Your task to perform on an android device: delete browsing data in the chrome app Image 0: 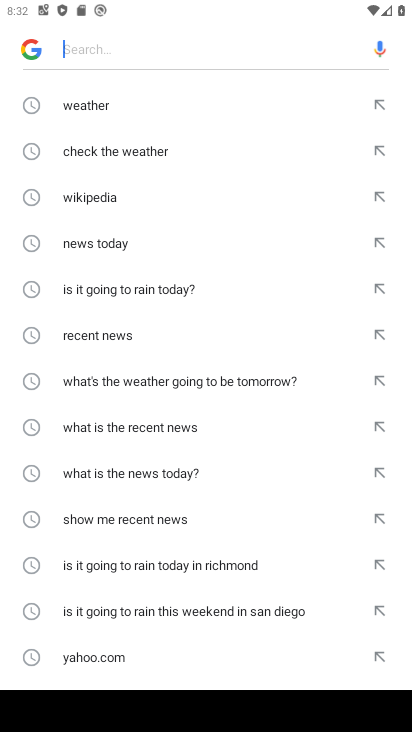
Step 0: press home button
Your task to perform on an android device: delete browsing data in the chrome app Image 1: 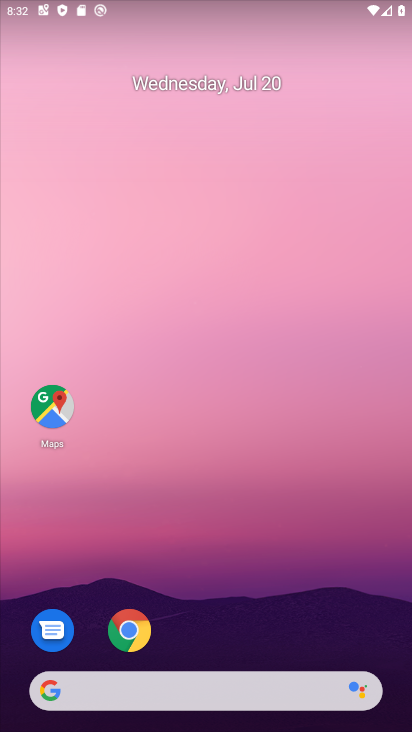
Step 1: click (121, 621)
Your task to perform on an android device: delete browsing data in the chrome app Image 2: 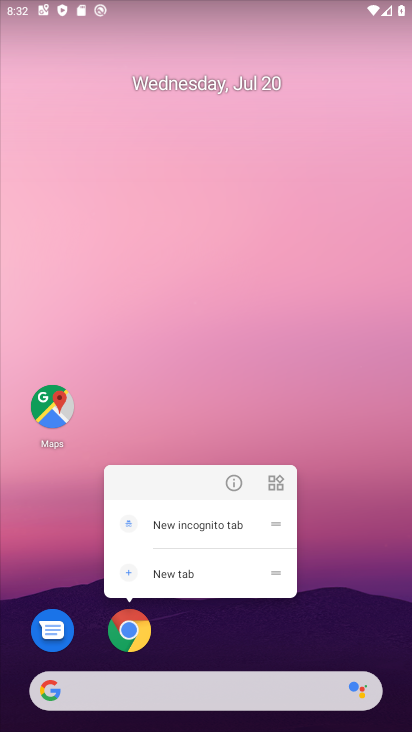
Step 2: click (123, 635)
Your task to perform on an android device: delete browsing data in the chrome app Image 3: 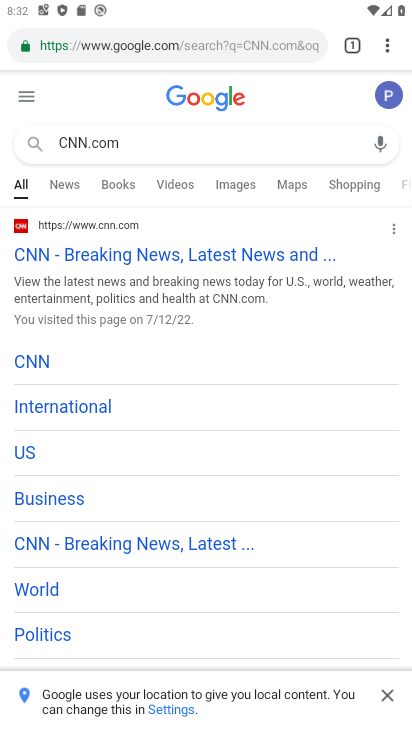
Step 3: click (389, 45)
Your task to perform on an android device: delete browsing data in the chrome app Image 4: 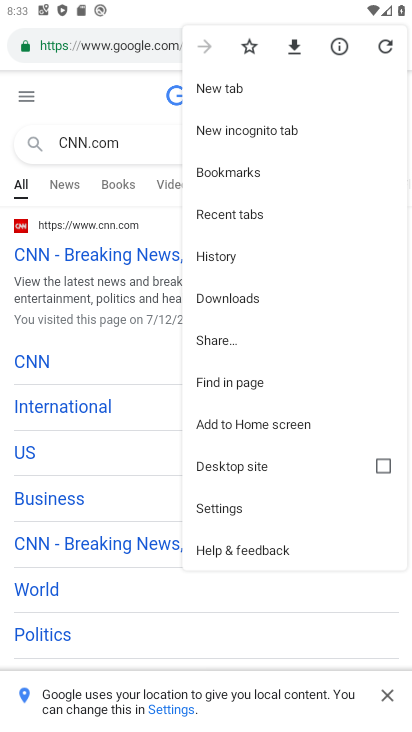
Step 4: click (214, 253)
Your task to perform on an android device: delete browsing data in the chrome app Image 5: 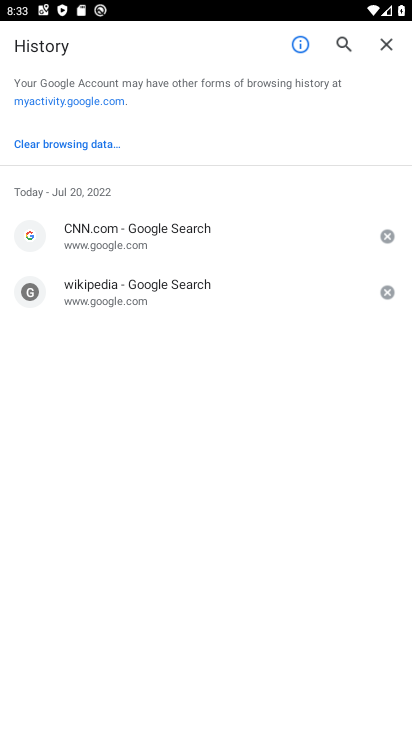
Step 5: click (63, 141)
Your task to perform on an android device: delete browsing data in the chrome app Image 6: 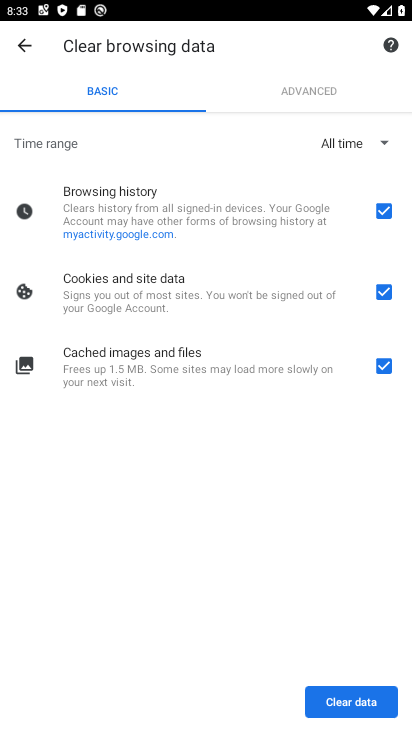
Step 6: click (338, 702)
Your task to perform on an android device: delete browsing data in the chrome app Image 7: 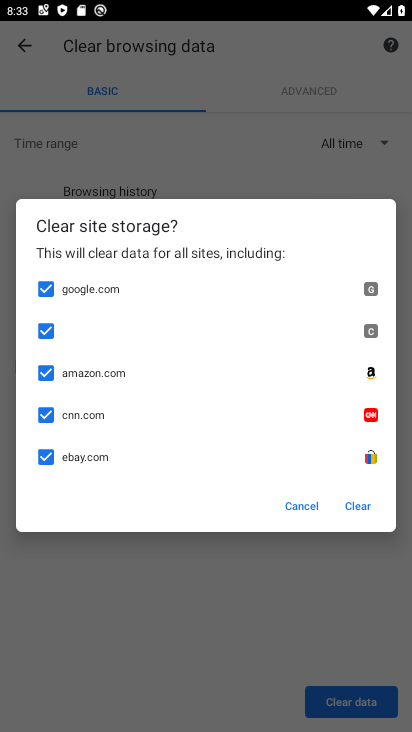
Step 7: click (360, 498)
Your task to perform on an android device: delete browsing data in the chrome app Image 8: 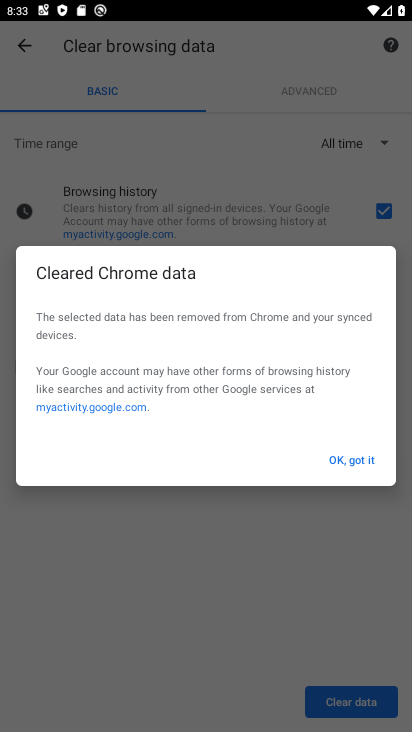
Step 8: click (355, 462)
Your task to perform on an android device: delete browsing data in the chrome app Image 9: 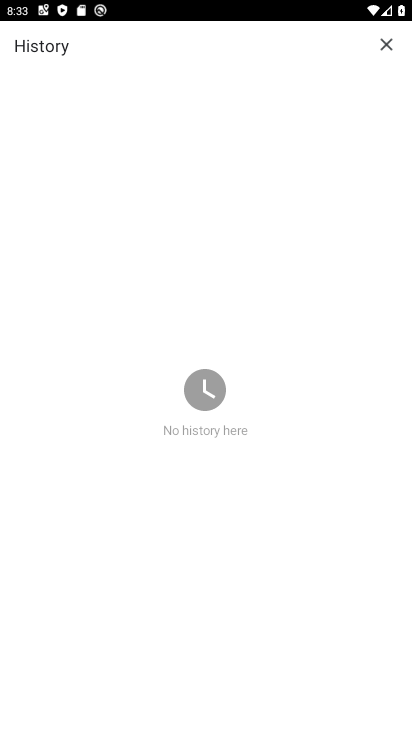
Step 9: task complete